Your task to perform on an android device: set an alarm Image 0: 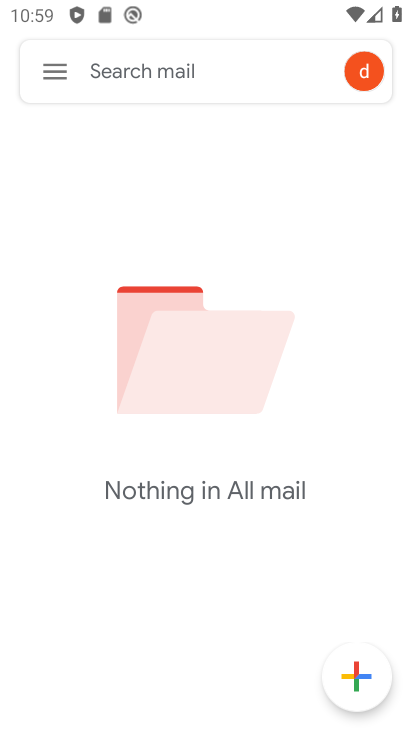
Step 0: press home button
Your task to perform on an android device: set an alarm Image 1: 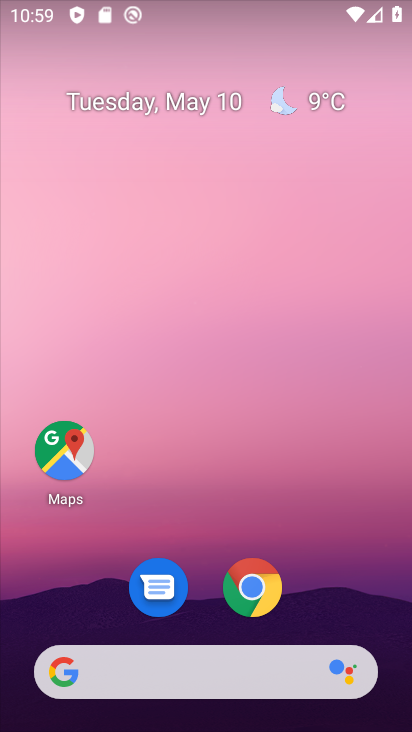
Step 1: drag from (351, 599) to (398, 53)
Your task to perform on an android device: set an alarm Image 2: 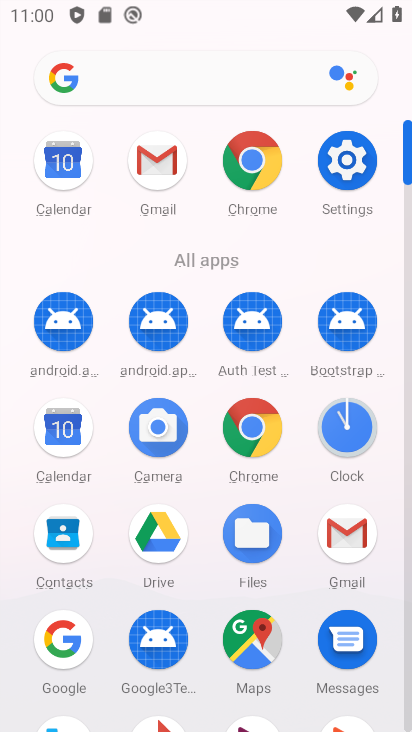
Step 2: click (339, 430)
Your task to perform on an android device: set an alarm Image 3: 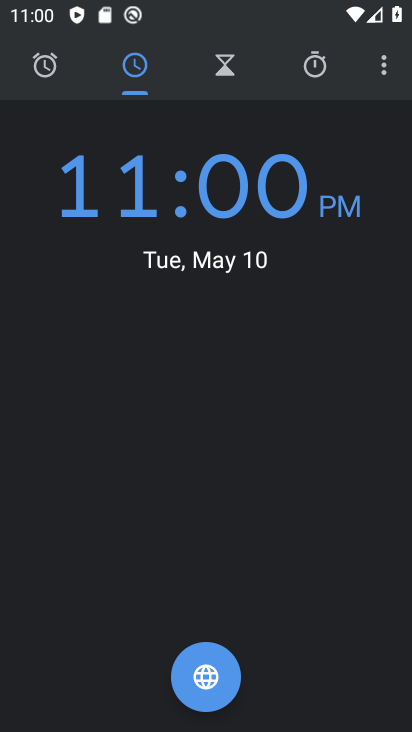
Step 3: click (54, 62)
Your task to perform on an android device: set an alarm Image 4: 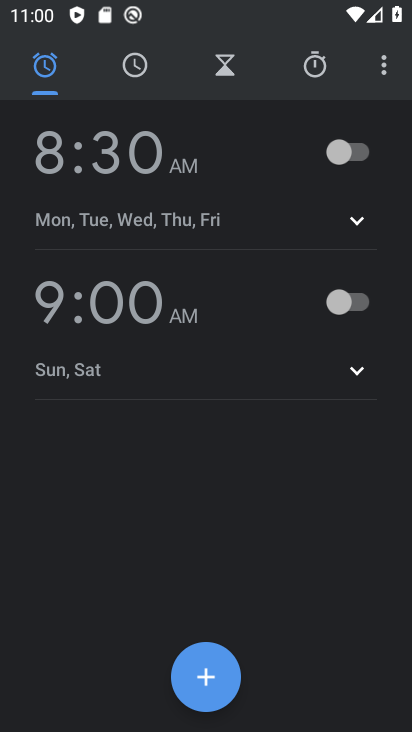
Step 4: click (209, 679)
Your task to perform on an android device: set an alarm Image 5: 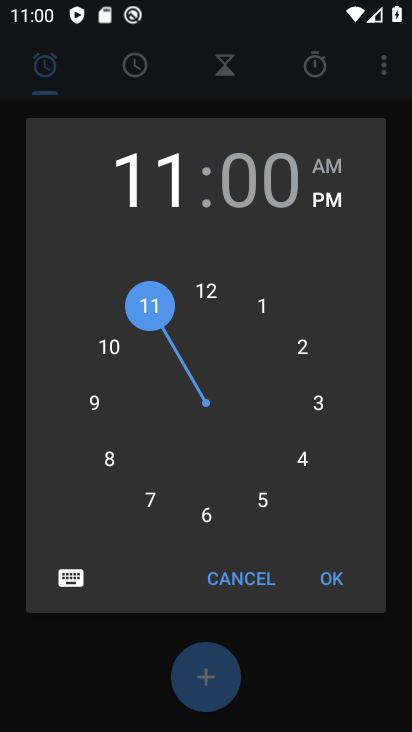
Step 5: click (259, 501)
Your task to perform on an android device: set an alarm Image 6: 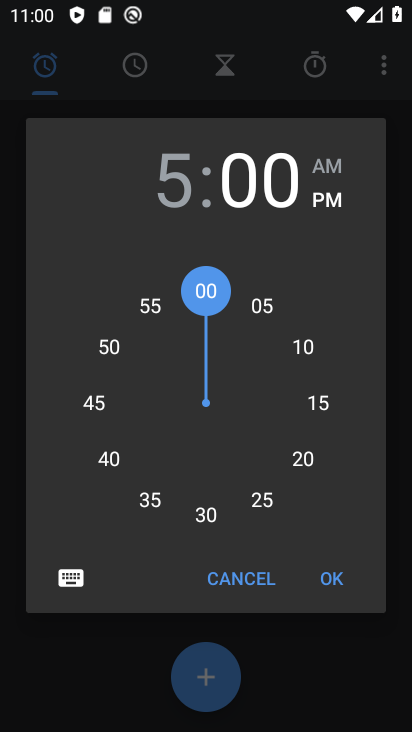
Step 6: click (209, 296)
Your task to perform on an android device: set an alarm Image 7: 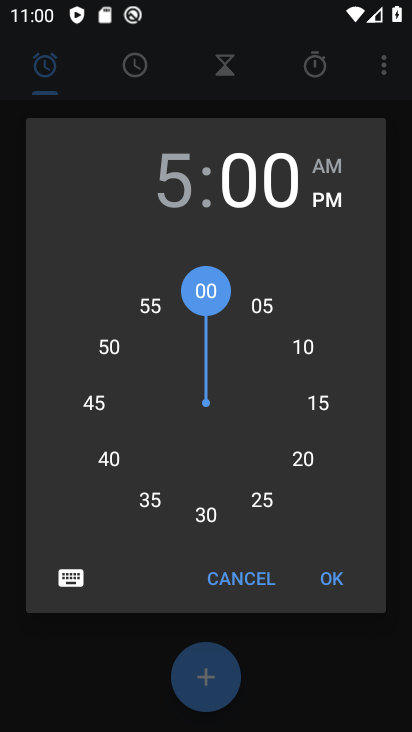
Step 7: click (325, 165)
Your task to perform on an android device: set an alarm Image 8: 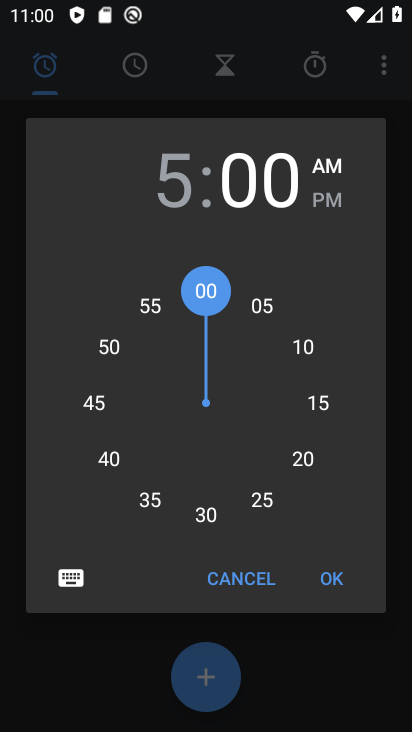
Step 8: click (336, 574)
Your task to perform on an android device: set an alarm Image 9: 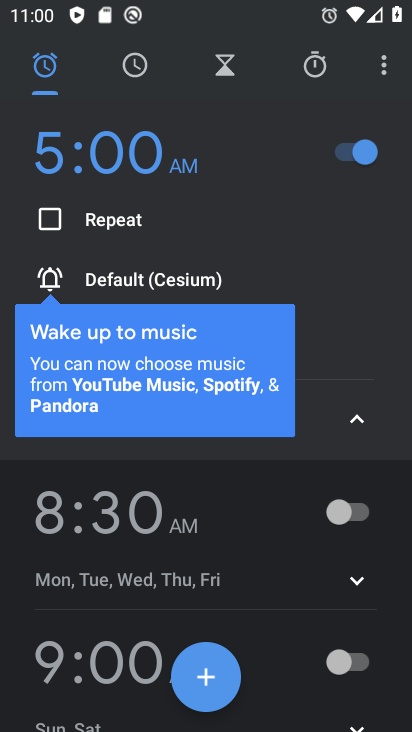
Step 9: task complete